Your task to perform on an android device: Go to display settings Image 0: 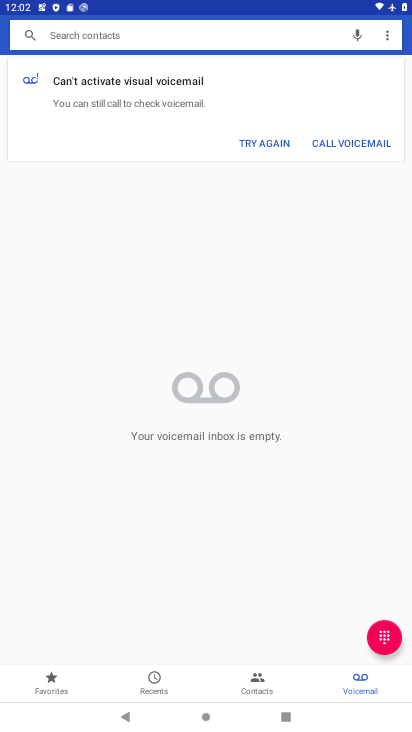
Step 0: press home button
Your task to perform on an android device: Go to display settings Image 1: 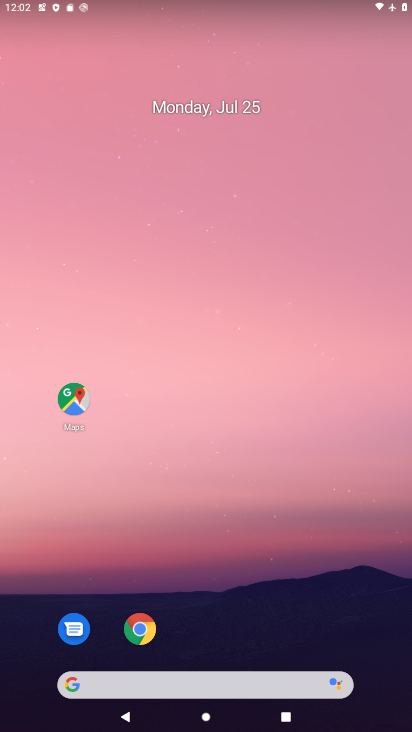
Step 1: drag from (251, 642) to (276, 109)
Your task to perform on an android device: Go to display settings Image 2: 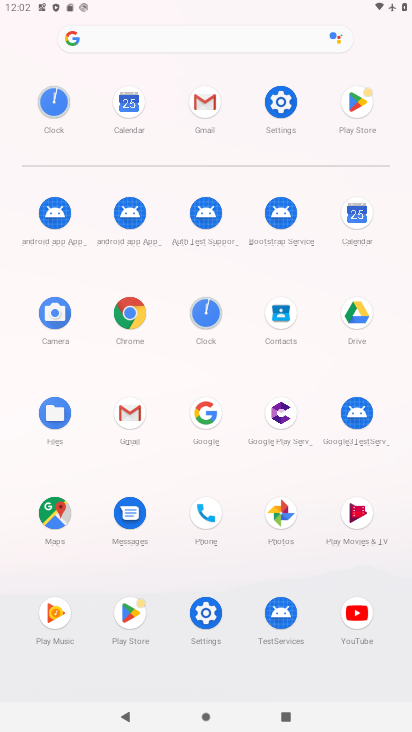
Step 2: click (276, 109)
Your task to perform on an android device: Go to display settings Image 3: 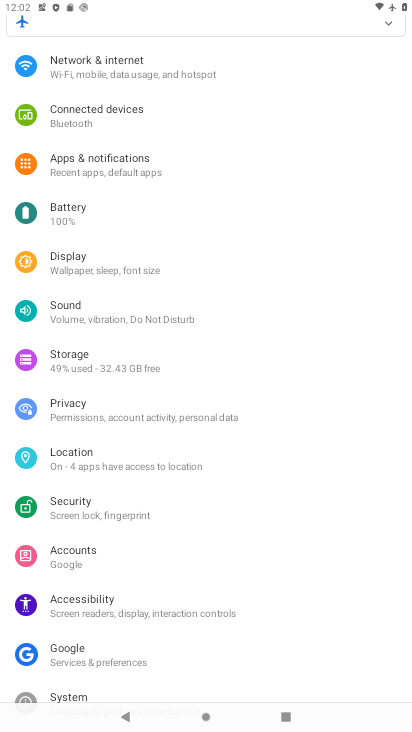
Step 3: click (206, 255)
Your task to perform on an android device: Go to display settings Image 4: 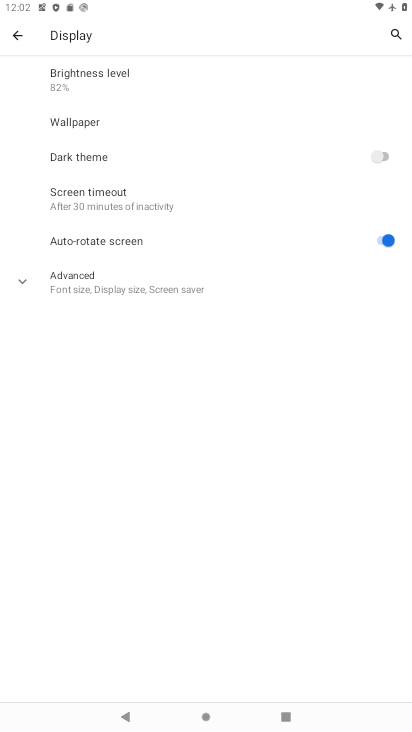
Step 4: task complete